Your task to perform on an android device: open app "Paramount+ | Peak Streaming" (install if not already installed) Image 0: 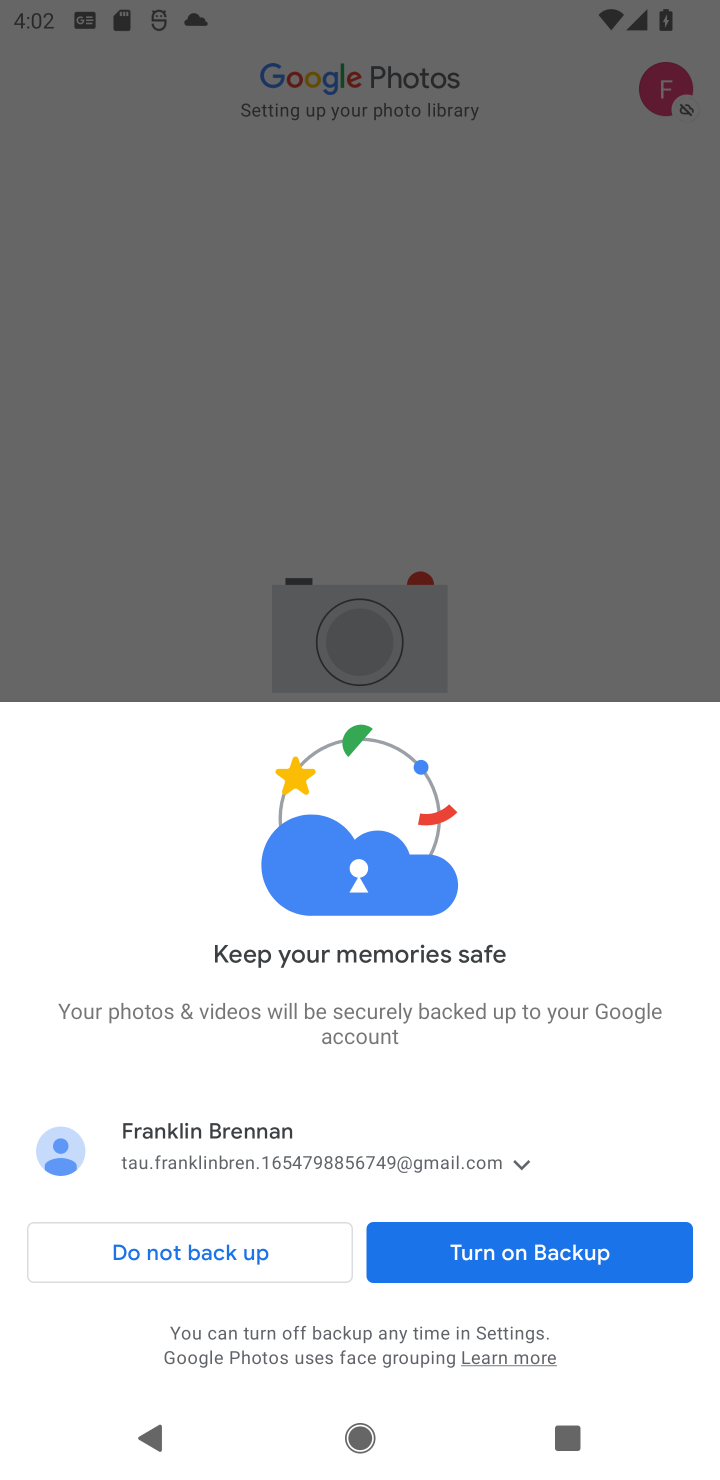
Step 0: press home button
Your task to perform on an android device: open app "Paramount+ | Peak Streaming" (install if not already installed) Image 1: 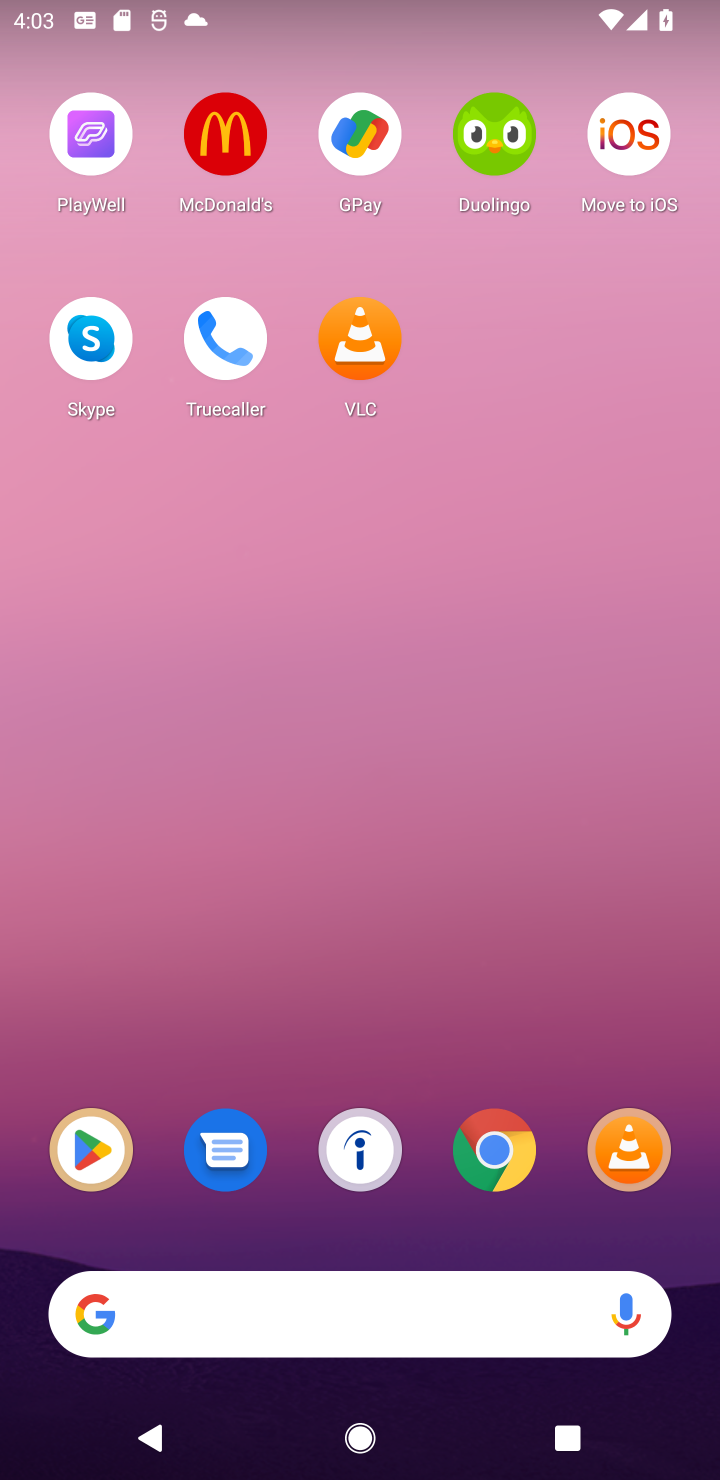
Step 1: drag from (305, 1017) to (253, 290)
Your task to perform on an android device: open app "Paramount+ | Peak Streaming" (install if not already installed) Image 2: 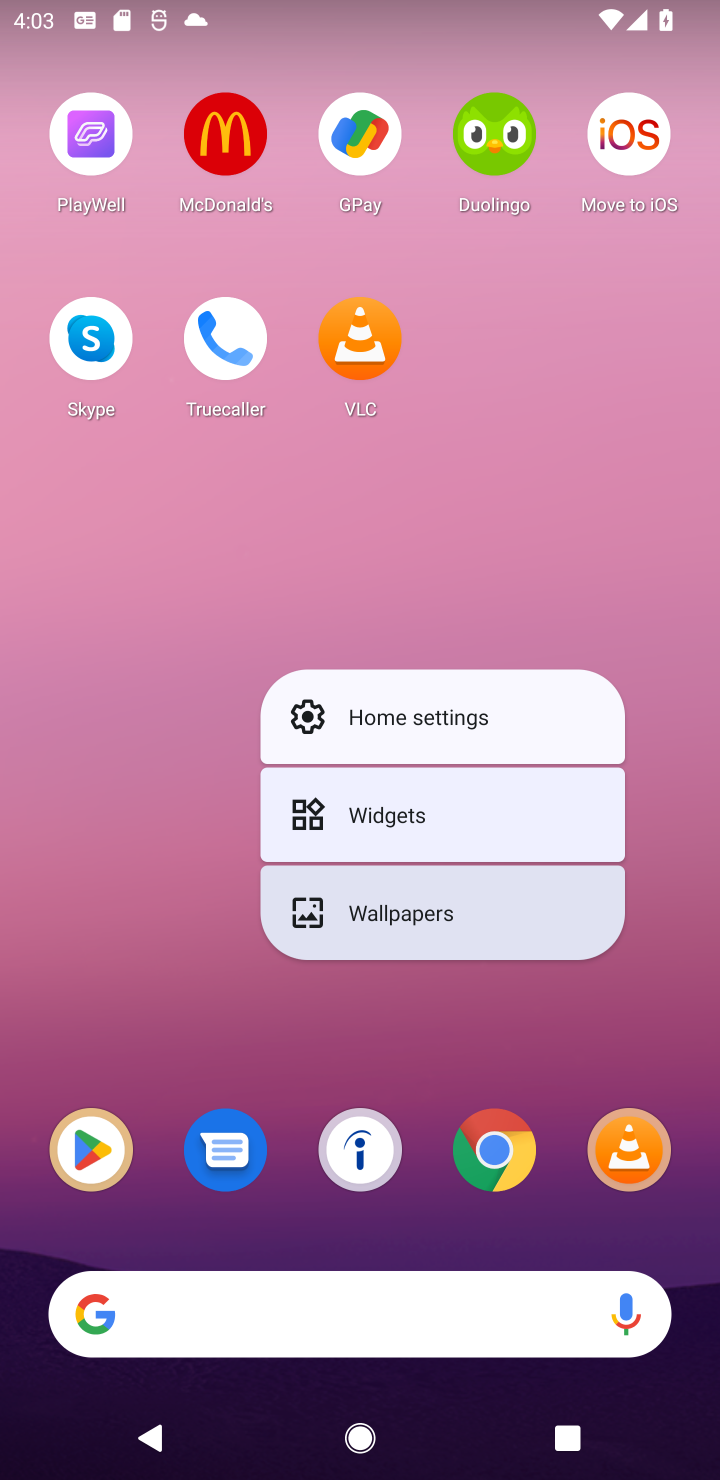
Step 2: click (298, 603)
Your task to perform on an android device: open app "Paramount+ | Peak Streaming" (install if not already installed) Image 3: 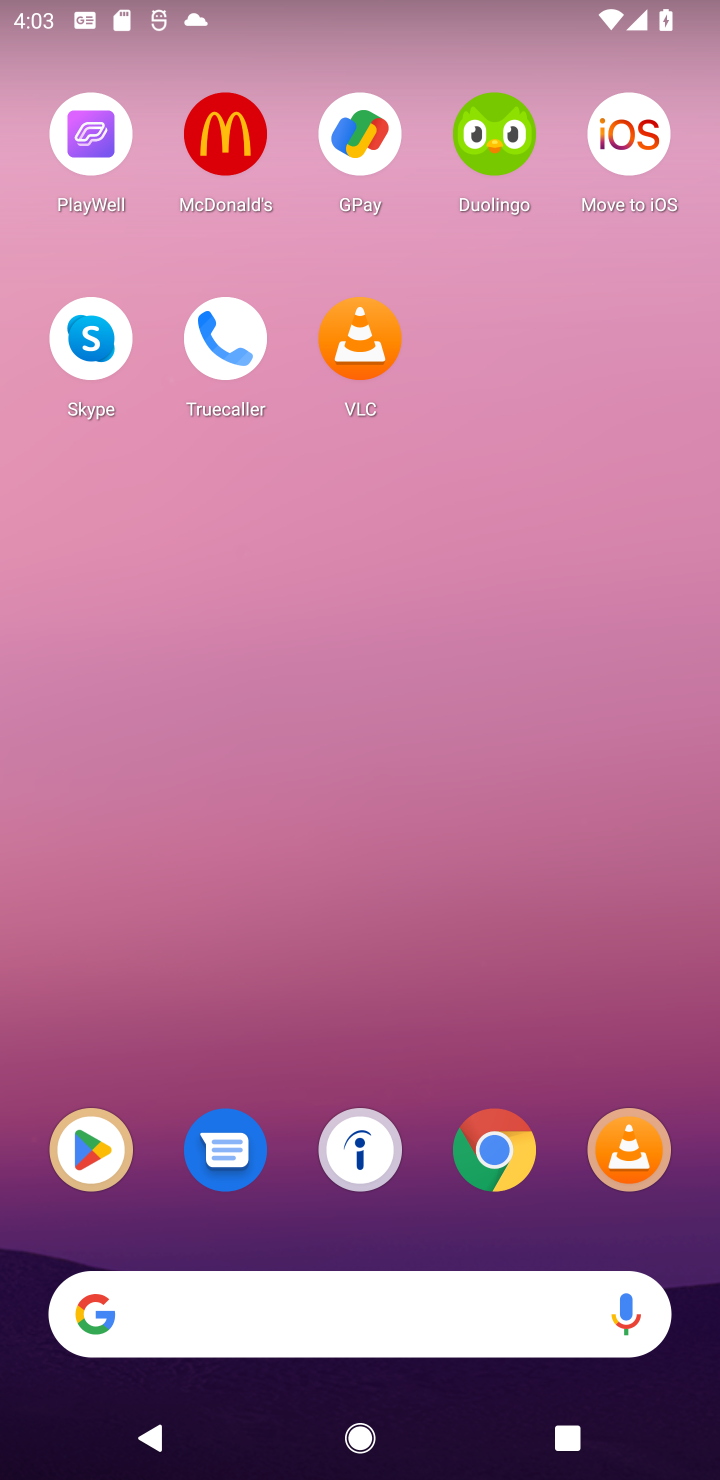
Step 3: drag from (287, 1231) to (301, 32)
Your task to perform on an android device: open app "Paramount+ | Peak Streaming" (install if not already installed) Image 4: 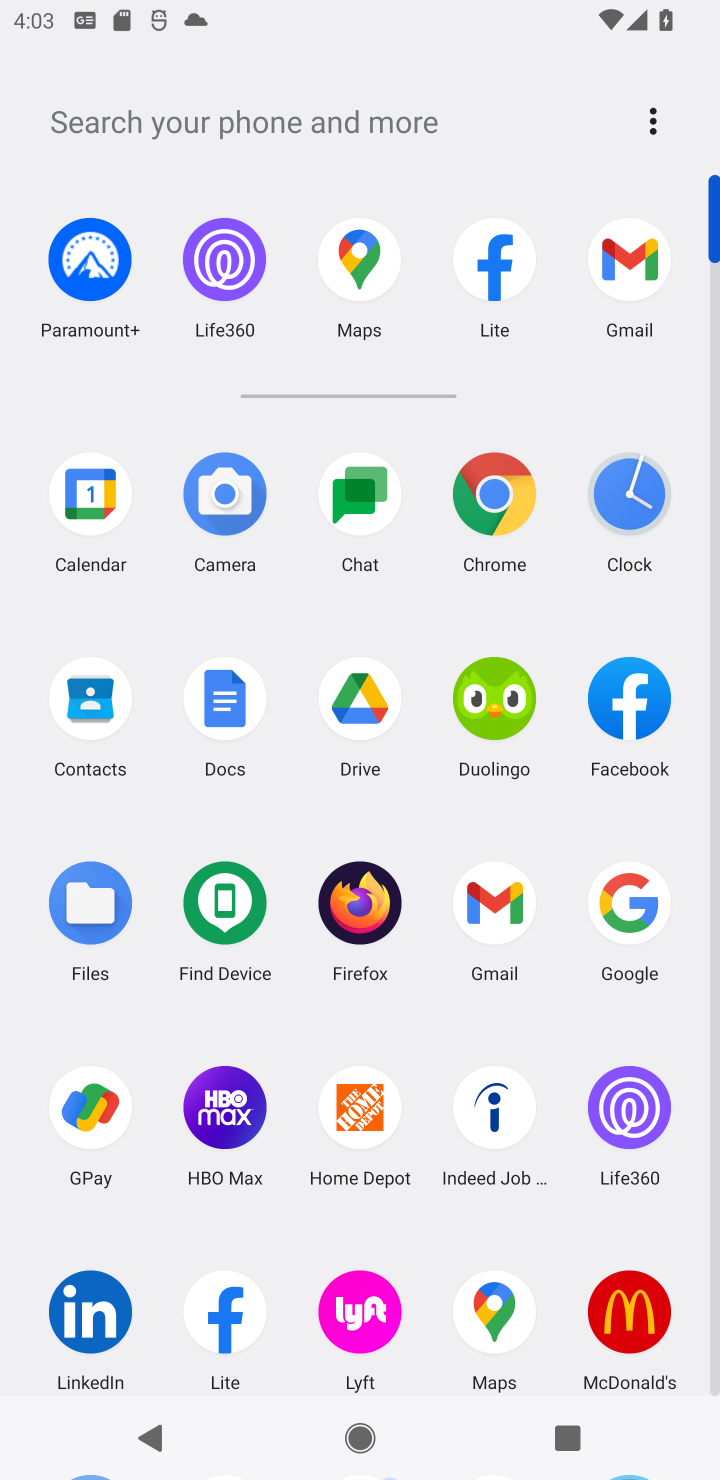
Step 4: click (90, 255)
Your task to perform on an android device: open app "Paramount+ | Peak Streaming" (install if not already installed) Image 5: 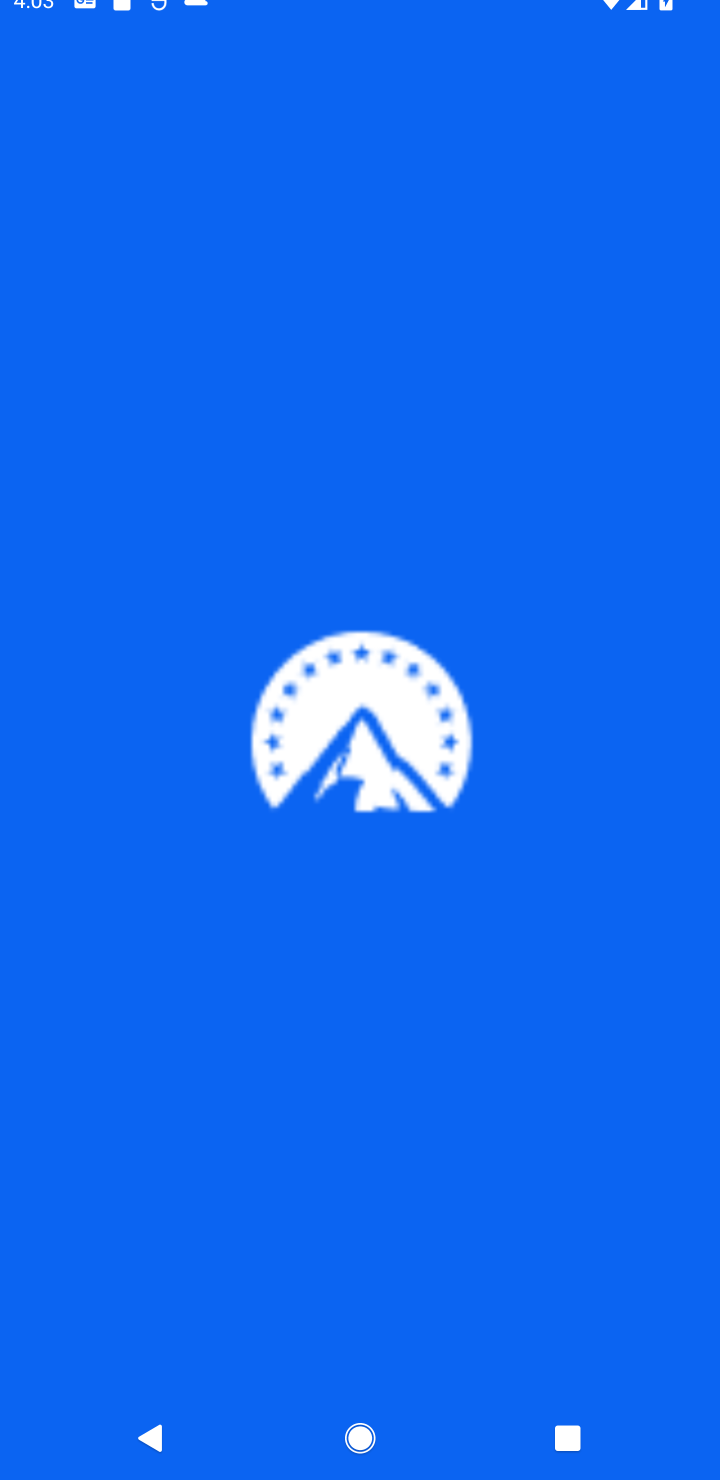
Step 5: task complete